Your task to perform on an android device: Show me productivity apps on the Play Store Image 0: 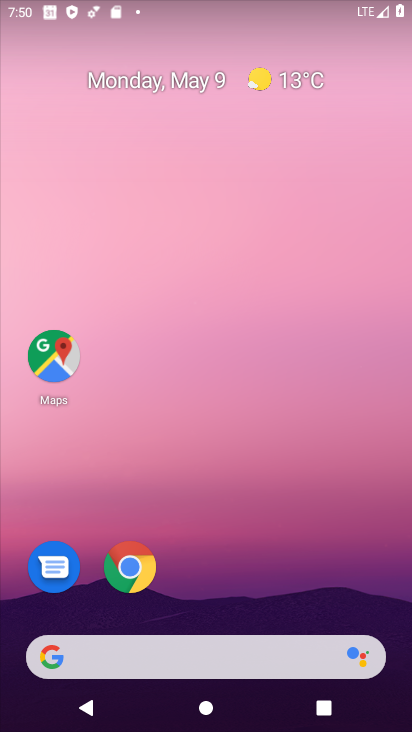
Step 0: drag from (203, 539) to (169, 28)
Your task to perform on an android device: Show me productivity apps on the Play Store Image 1: 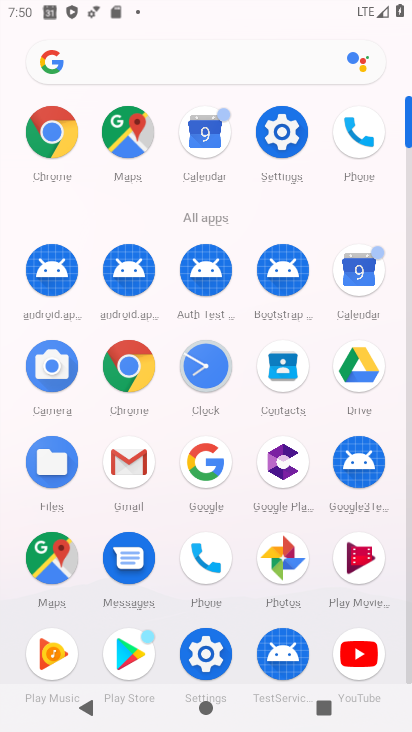
Step 1: drag from (155, 506) to (165, 150)
Your task to perform on an android device: Show me productivity apps on the Play Store Image 2: 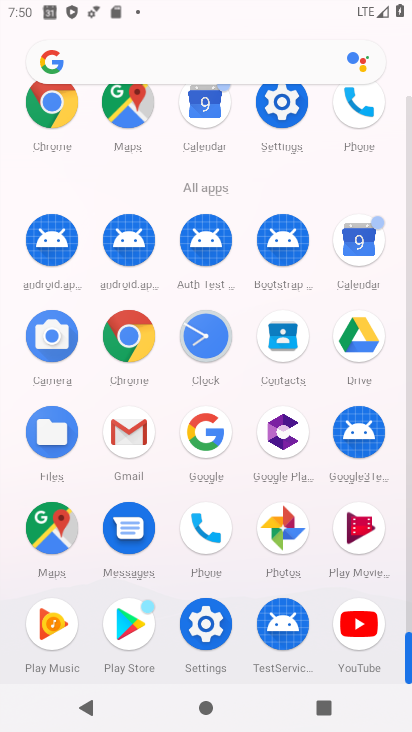
Step 2: click (136, 608)
Your task to perform on an android device: Show me productivity apps on the Play Store Image 3: 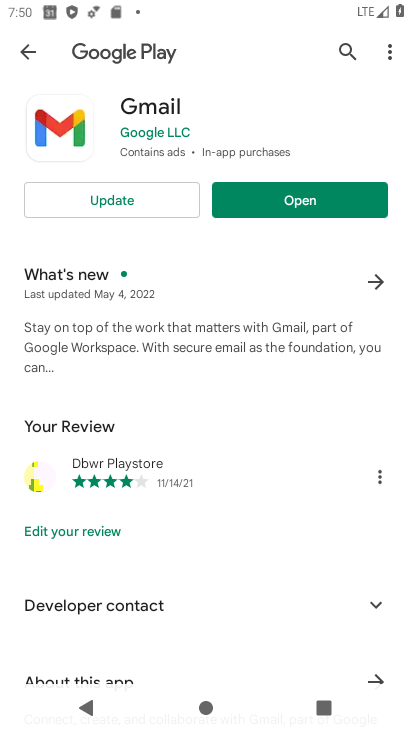
Step 3: click (28, 47)
Your task to perform on an android device: Show me productivity apps on the Play Store Image 4: 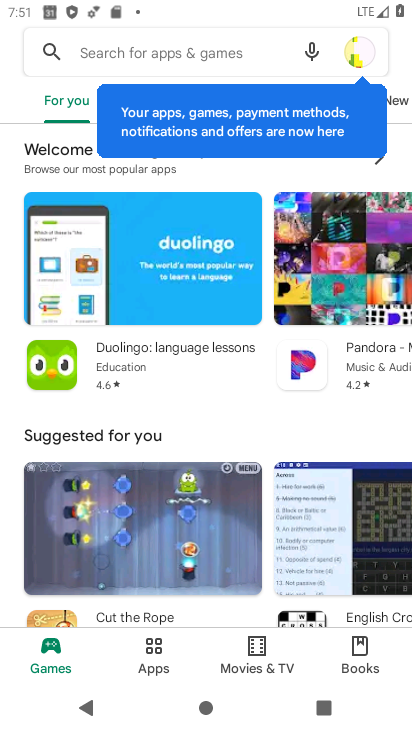
Step 4: click (151, 642)
Your task to perform on an android device: Show me productivity apps on the Play Store Image 5: 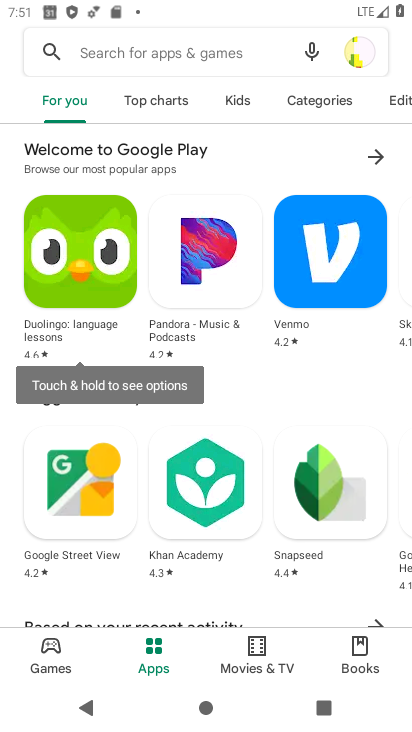
Step 5: click (329, 85)
Your task to perform on an android device: Show me productivity apps on the Play Store Image 6: 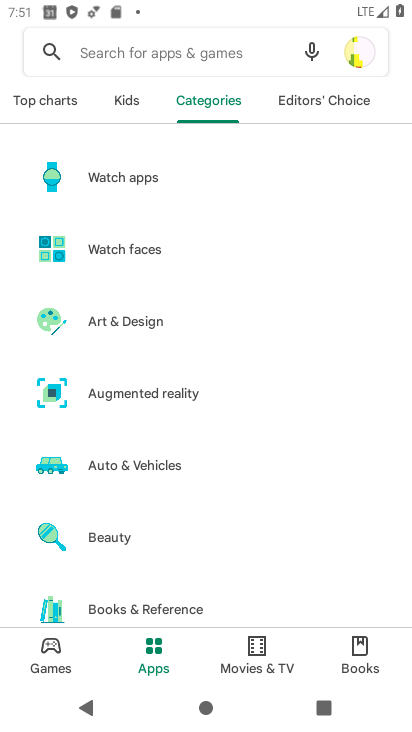
Step 6: drag from (196, 520) to (206, 38)
Your task to perform on an android device: Show me productivity apps on the Play Store Image 7: 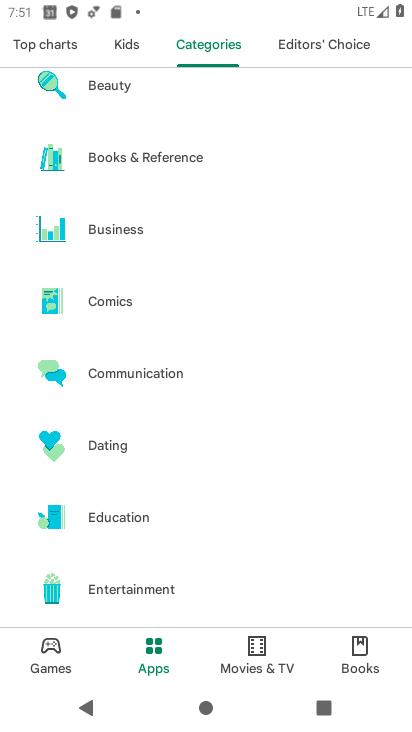
Step 7: drag from (185, 562) to (204, 52)
Your task to perform on an android device: Show me productivity apps on the Play Store Image 8: 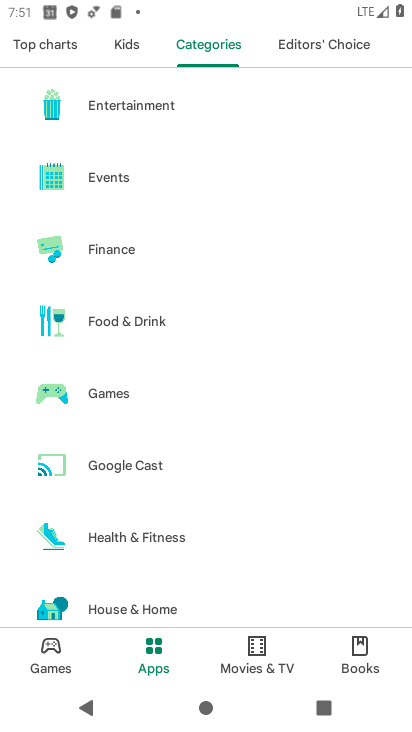
Step 8: drag from (178, 579) to (179, 123)
Your task to perform on an android device: Show me productivity apps on the Play Store Image 9: 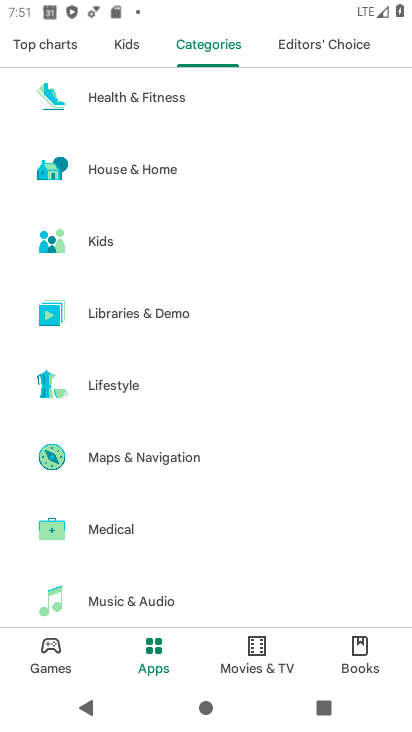
Step 9: drag from (208, 536) to (203, 77)
Your task to perform on an android device: Show me productivity apps on the Play Store Image 10: 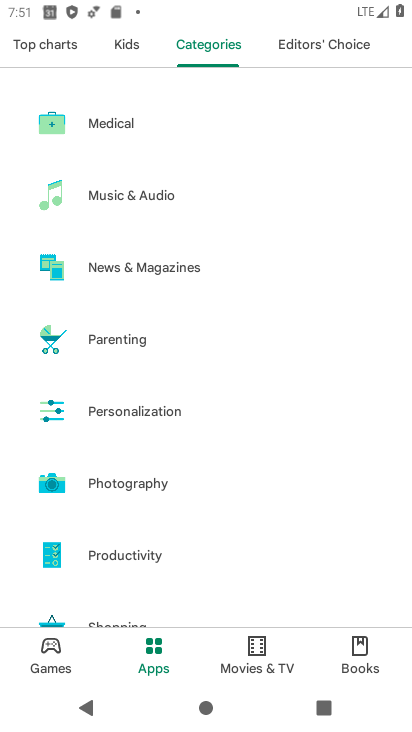
Step 10: click (136, 550)
Your task to perform on an android device: Show me productivity apps on the Play Store Image 11: 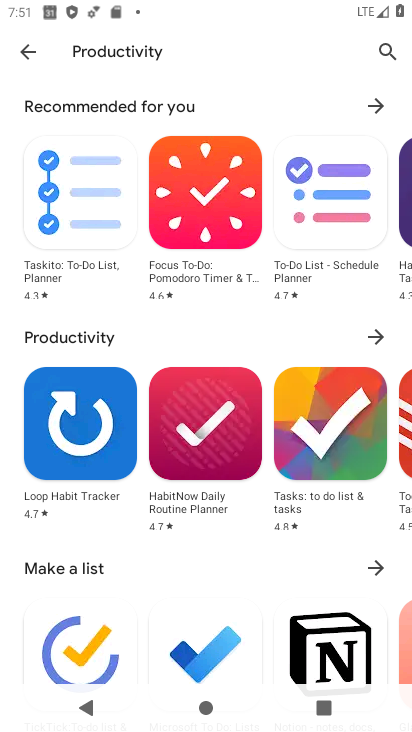
Step 11: click (364, 327)
Your task to perform on an android device: Show me productivity apps on the Play Store Image 12: 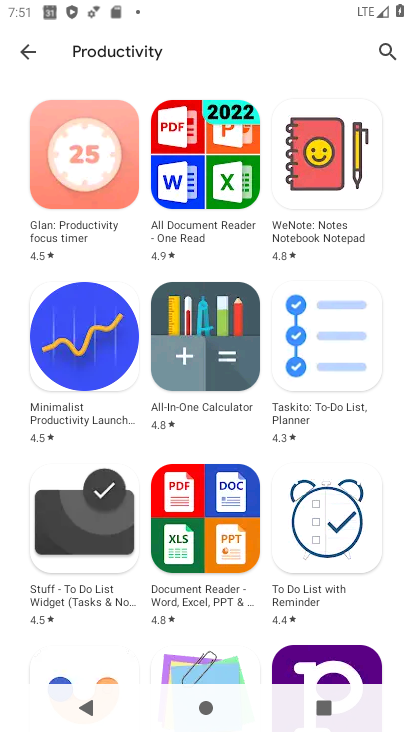
Step 12: task complete